Your task to perform on an android device: Open Google Chrome Image 0: 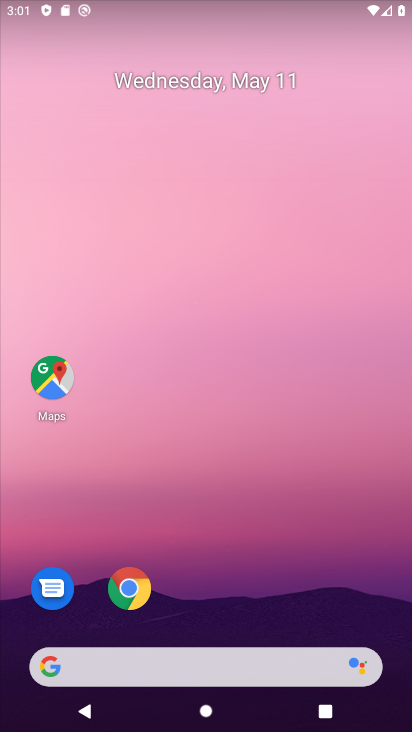
Step 0: click (145, 587)
Your task to perform on an android device: Open Google Chrome Image 1: 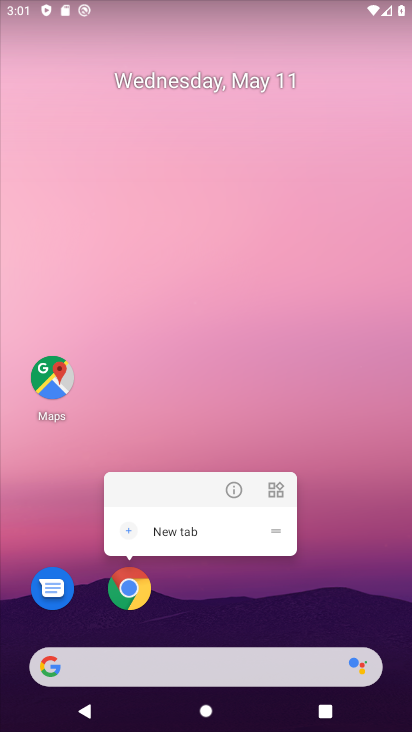
Step 1: click (131, 592)
Your task to perform on an android device: Open Google Chrome Image 2: 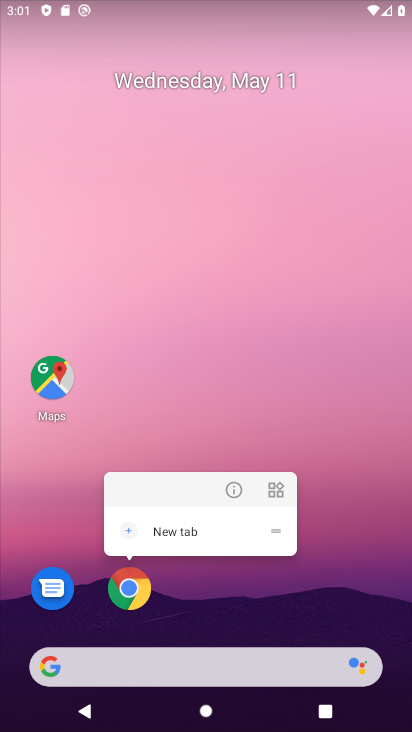
Step 2: click (133, 593)
Your task to perform on an android device: Open Google Chrome Image 3: 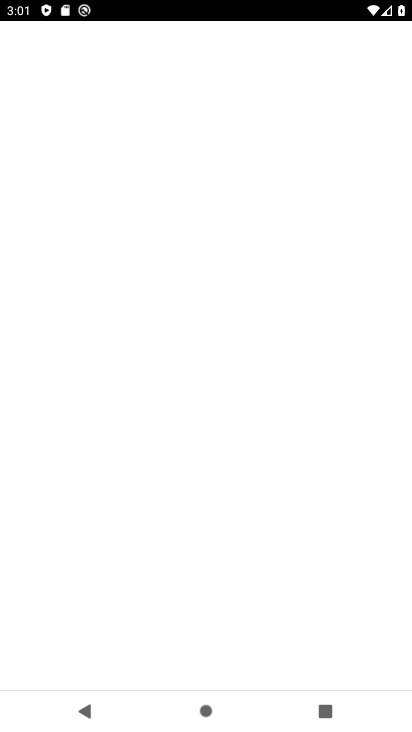
Step 3: click (133, 593)
Your task to perform on an android device: Open Google Chrome Image 4: 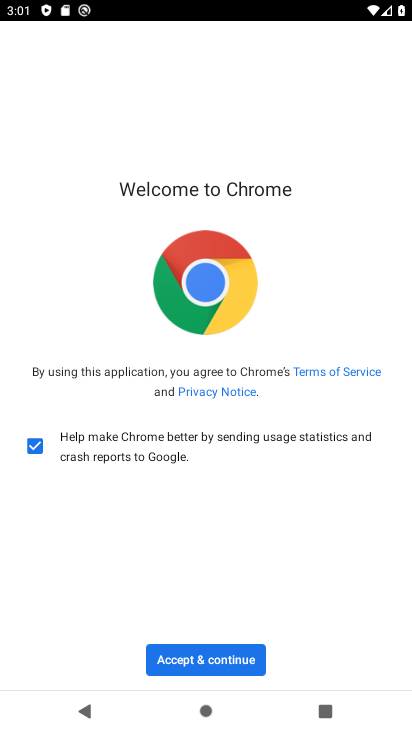
Step 4: click (250, 651)
Your task to perform on an android device: Open Google Chrome Image 5: 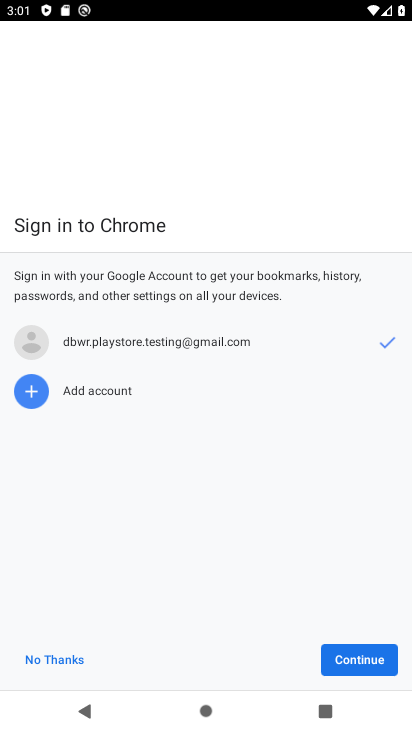
Step 5: click (205, 660)
Your task to perform on an android device: Open Google Chrome Image 6: 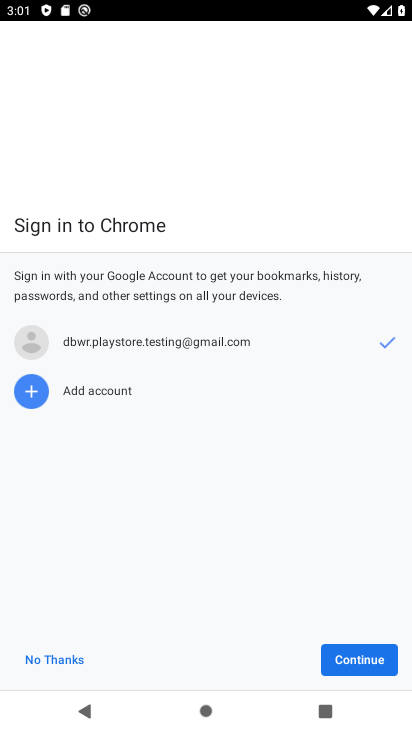
Step 6: click (366, 657)
Your task to perform on an android device: Open Google Chrome Image 7: 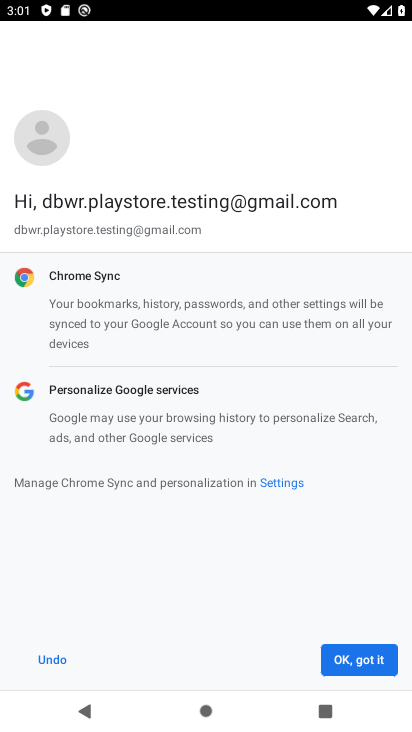
Step 7: click (357, 659)
Your task to perform on an android device: Open Google Chrome Image 8: 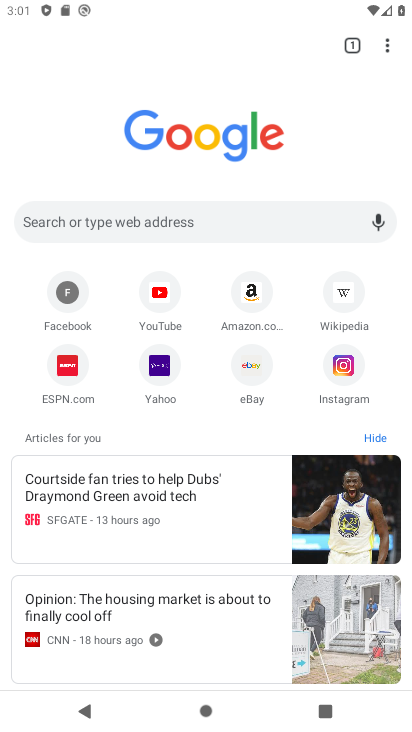
Step 8: task complete